Your task to perform on an android device: Check the weather Image 0: 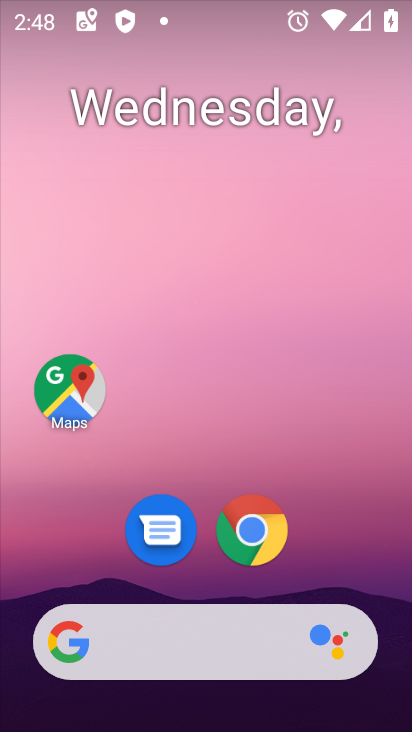
Step 0: drag from (5, 263) to (406, 243)
Your task to perform on an android device: Check the weather Image 1: 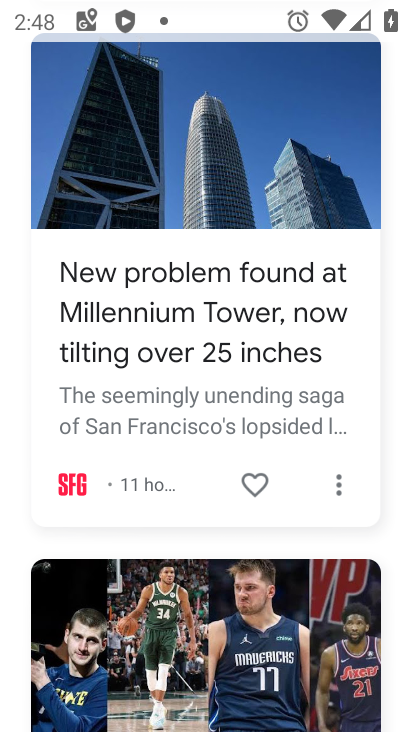
Step 1: drag from (208, 110) to (318, 549)
Your task to perform on an android device: Check the weather Image 2: 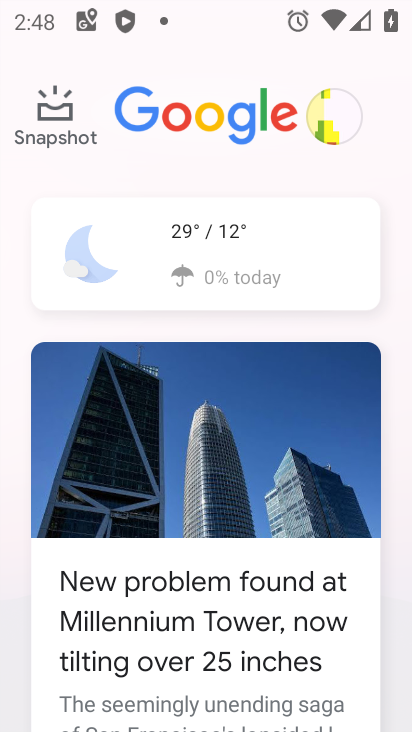
Step 2: click (135, 262)
Your task to perform on an android device: Check the weather Image 3: 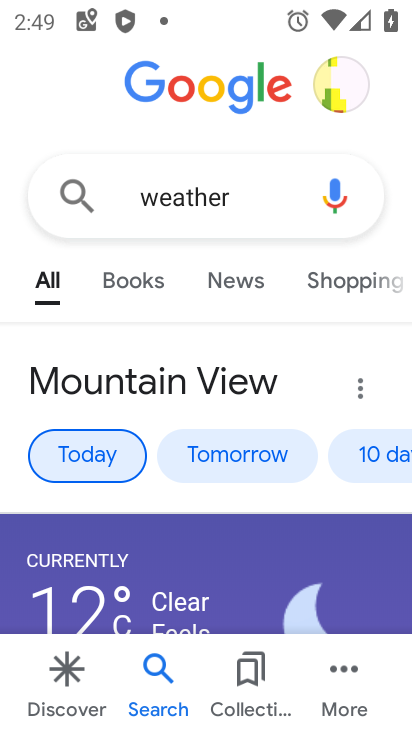
Step 3: task complete